Your task to perform on an android device: turn off wifi Image 0: 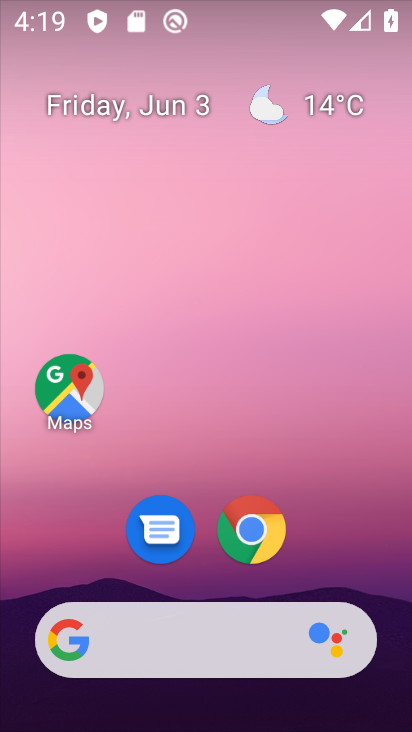
Step 0: drag from (330, 480) to (366, 4)
Your task to perform on an android device: turn off wifi Image 1: 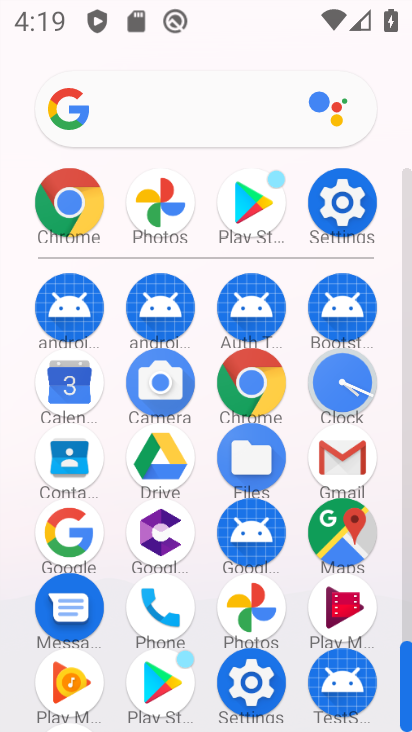
Step 1: click (349, 207)
Your task to perform on an android device: turn off wifi Image 2: 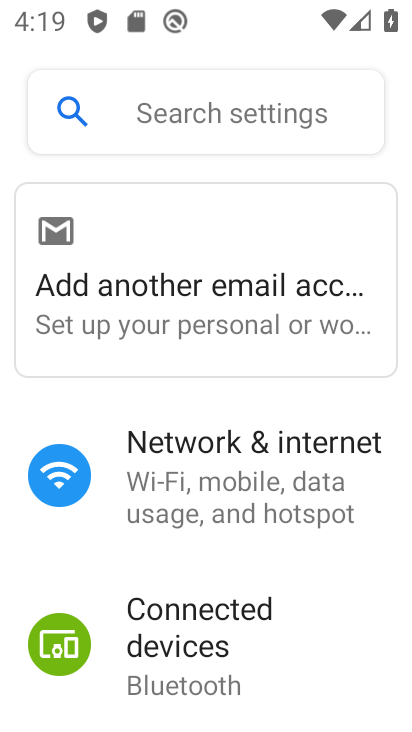
Step 2: click (194, 493)
Your task to perform on an android device: turn off wifi Image 3: 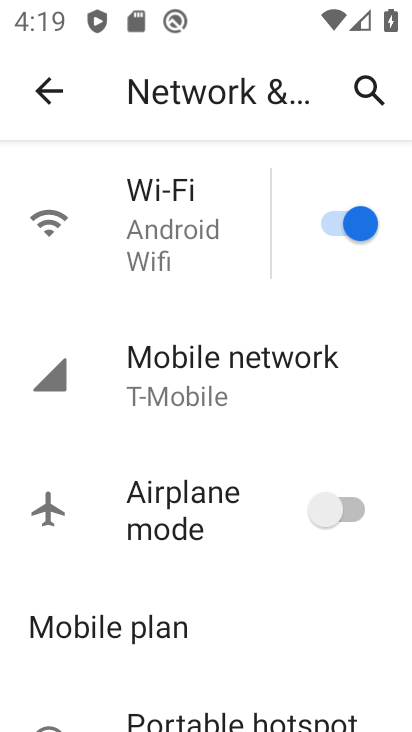
Step 3: click (341, 223)
Your task to perform on an android device: turn off wifi Image 4: 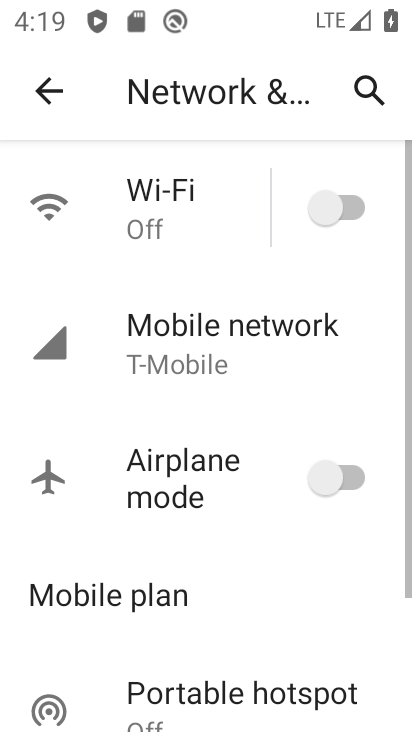
Step 4: task complete